Your task to perform on an android device: Search for Italian restaurants on Maps Image 0: 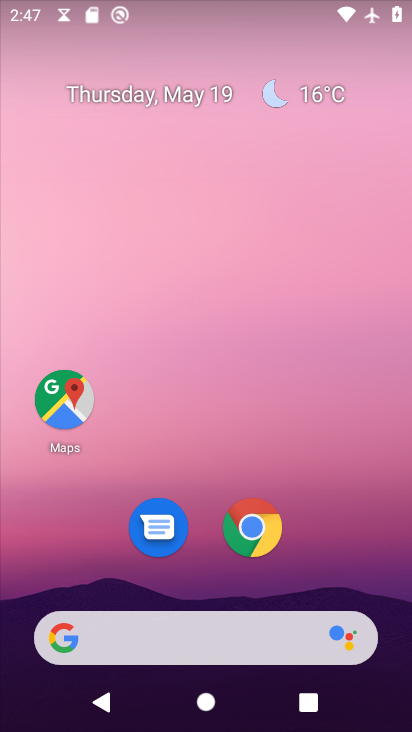
Step 0: click (67, 404)
Your task to perform on an android device: Search for Italian restaurants on Maps Image 1: 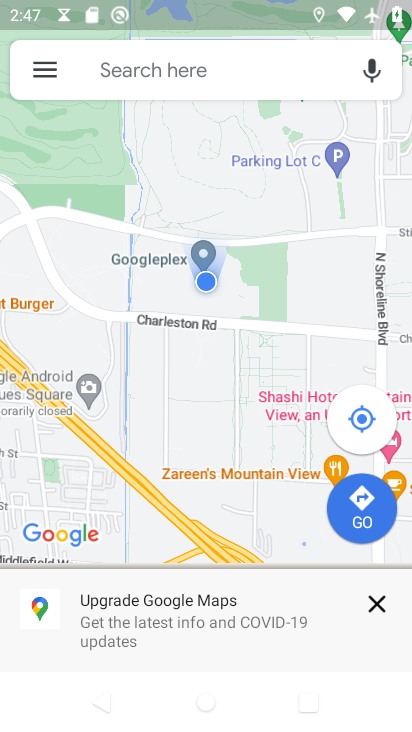
Step 1: click (213, 70)
Your task to perform on an android device: Search for Italian restaurants on Maps Image 2: 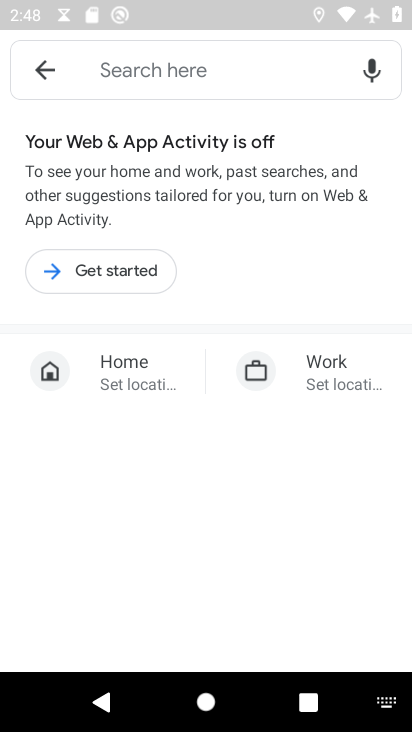
Step 2: type "italian restaurants"
Your task to perform on an android device: Search for Italian restaurants on Maps Image 3: 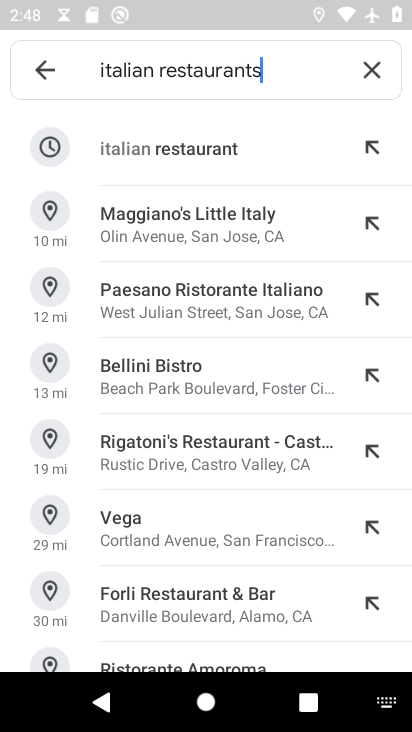
Step 3: click (206, 162)
Your task to perform on an android device: Search for Italian restaurants on Maps Image 4: 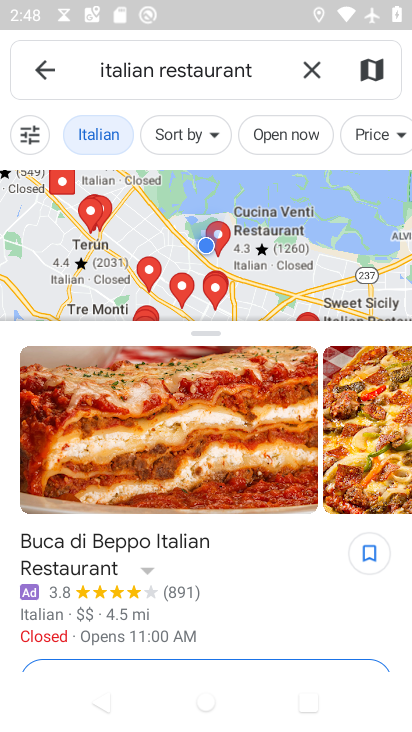
Step 4: task complete